Your task to perform on an android device: Set the phone to "Do not disturb". Image 0: 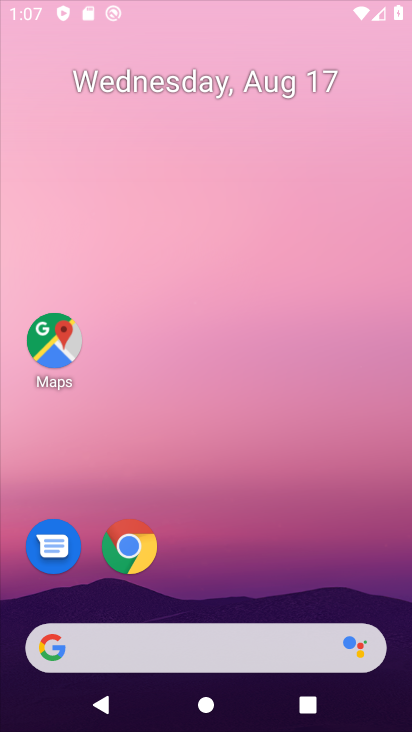
Step 0: press home button
Your task to perform on an android device: Set the phone to "Do not disturb". Image 1: 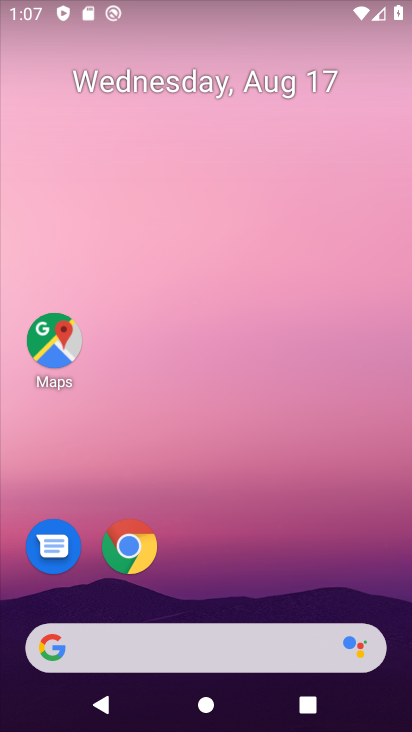
Step 1: drag from (256, 596) to (189, 42)
Your task to perform on an android device: Set the phone to "Do not disturb". Image 2: 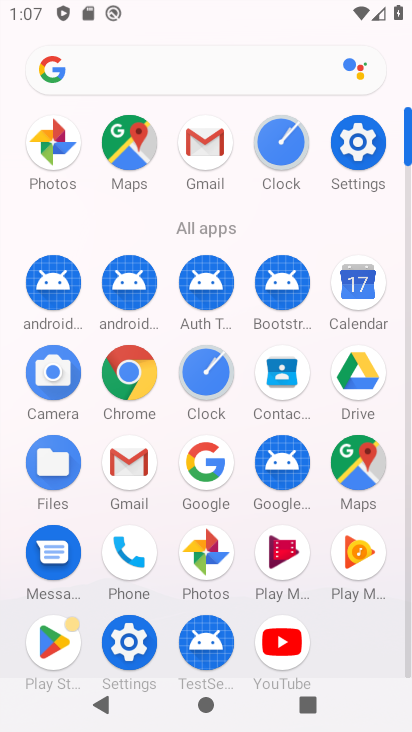
Step 2: click (359, 142)
Your task to perform on an android device: Set the phone to "Do not disturb". Image 3: 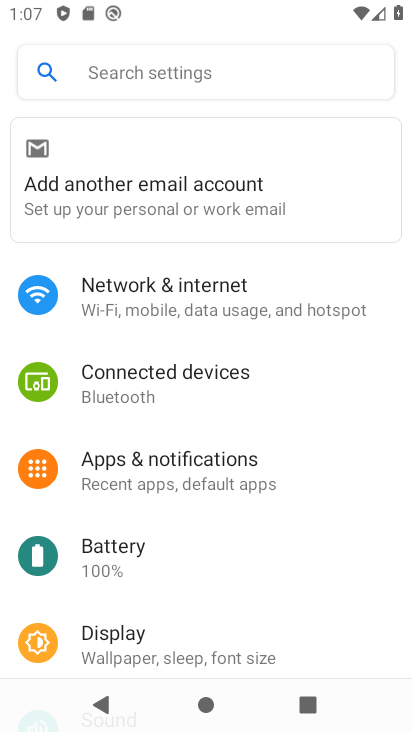
Step 3: drag from (271, 572) to (266, 389)
Your task to perform on an android device: Set the phone to "Do not disturb". Image 4: 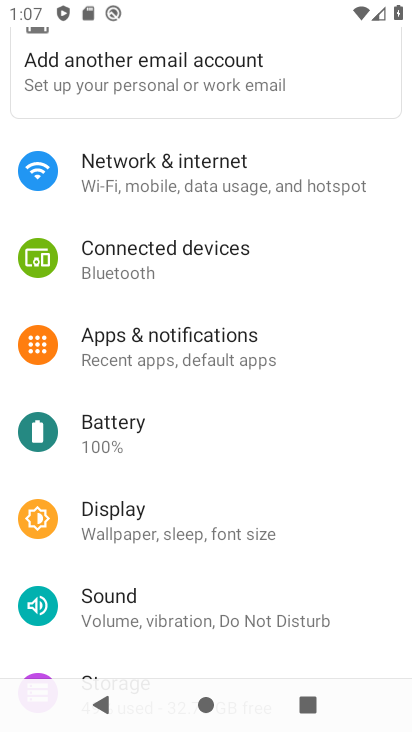
Step 4: click (121, 602)
Your task to perform on an android device: Set the phone to "Do not disturb". Image 5: 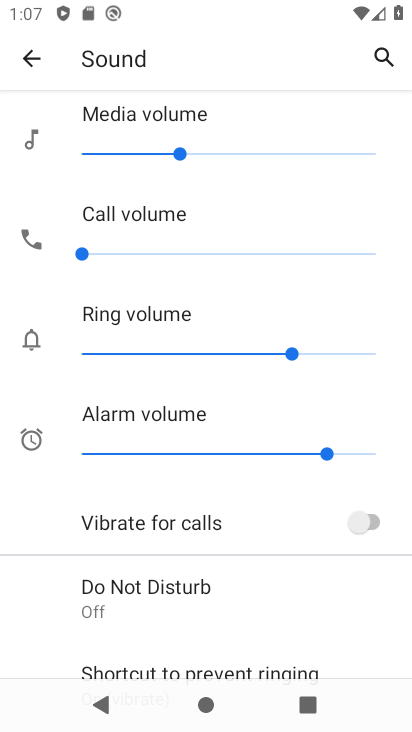
Step 5: click (121, 588)
Your task to perform on an android device: Set the phone to "Do not disturb". Image 6: 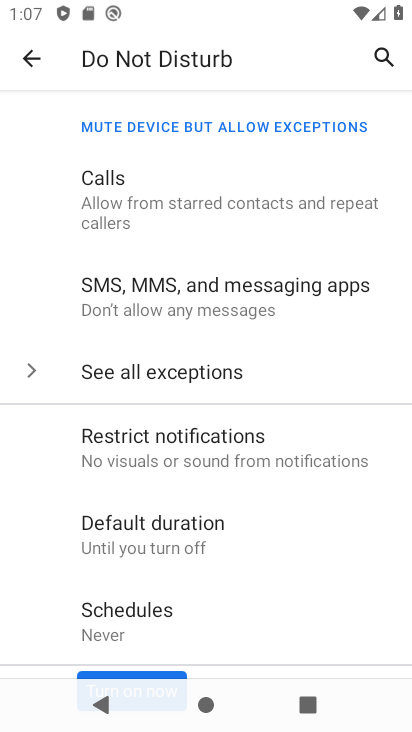
Step 6: drag from (258, 592) to (254, 440)
Your task to perform on an android device: Set the phone to "Do not disturb". Image 7: 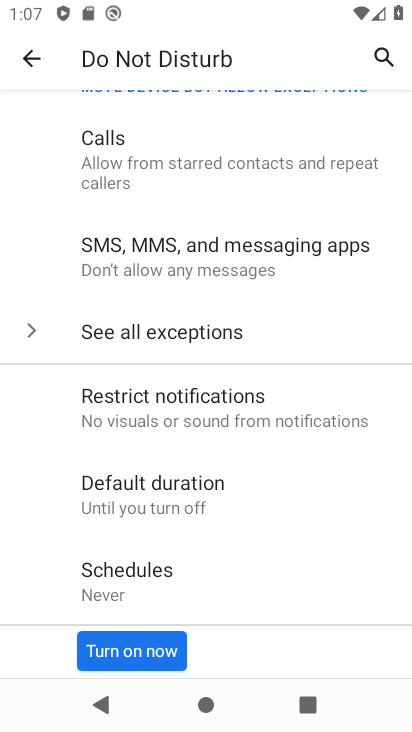
Step 7: click (138, 652)
Your task to perform on an android device: Set the phone to "Do not disturb". Image 8: 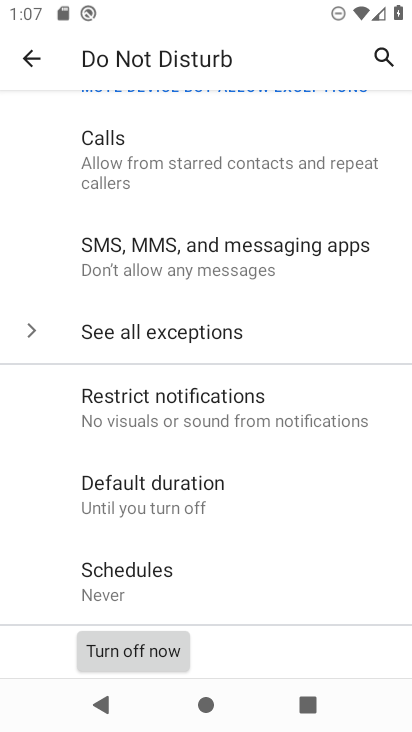
Step 8: task complete